Your task to perform on an android device: turn off picture-in-picture Image 0: 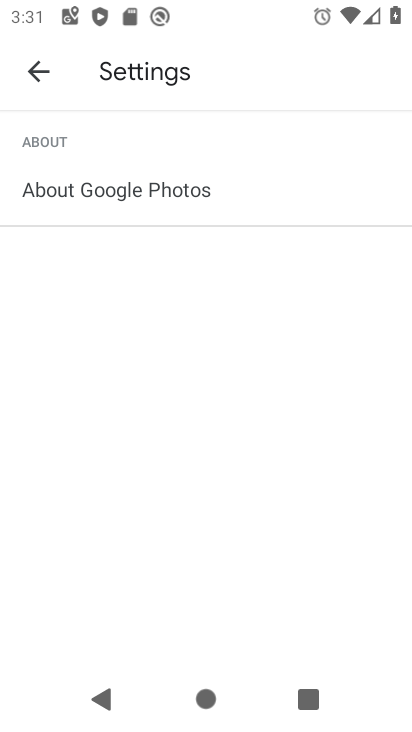
Step 0: press home button
Your task to perform on an android device: turn off picture-in-picture Image 1: 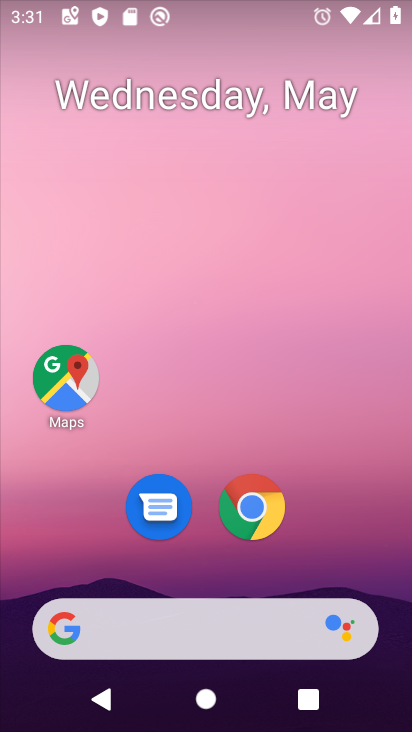
Step 1: click (251, 512)
Your task to perform on an android device: turn off picture-in-picture Image 2: 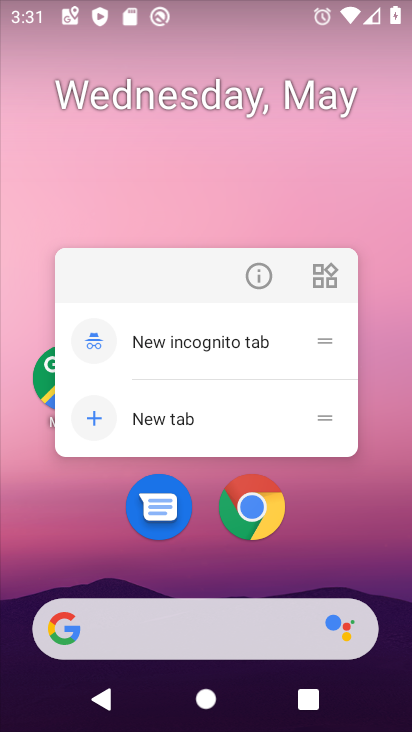
Step 2: click (259, 278)
Your task to perform on an android device: turn off picture-in-picture Image 3: 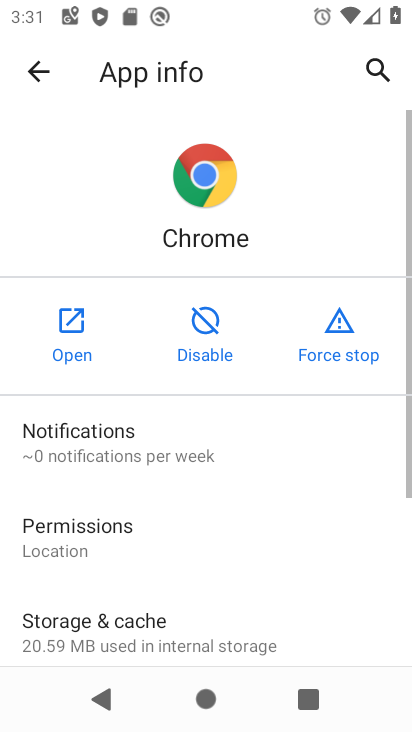
Step 3: drag from (229, 593) to (249, 60)
Your task to perform on an android device: turn off picture-in-picture Image 4: 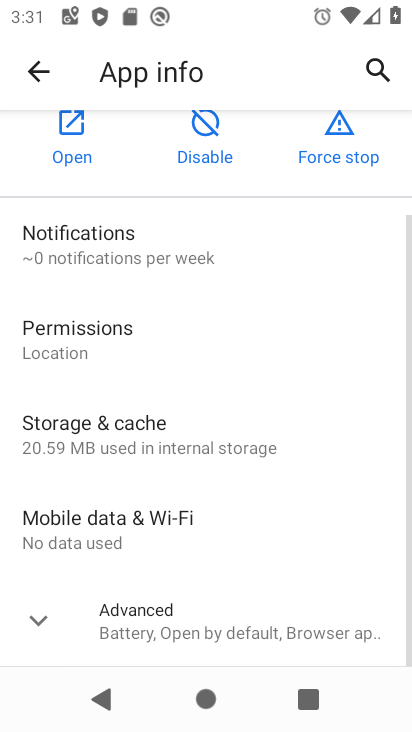
Step 4: click (149, 631)
Your task to perform on an android device: turn off picture-in-picture Image 5: 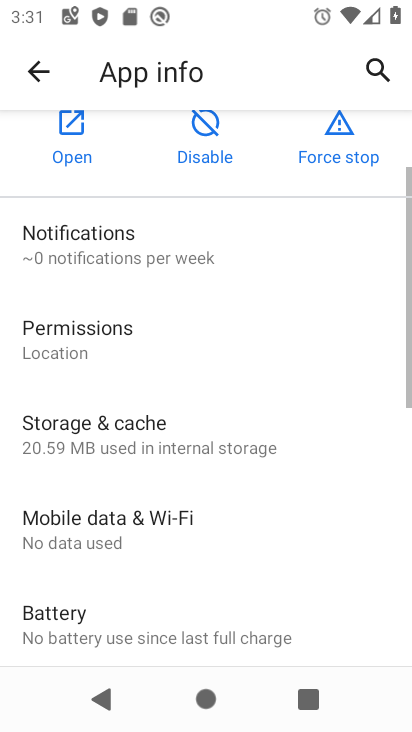
Step 5: drag from (301, 598) to (267, 107)
Your task to perform on an android device: turn off picture-in-picture Image 6: 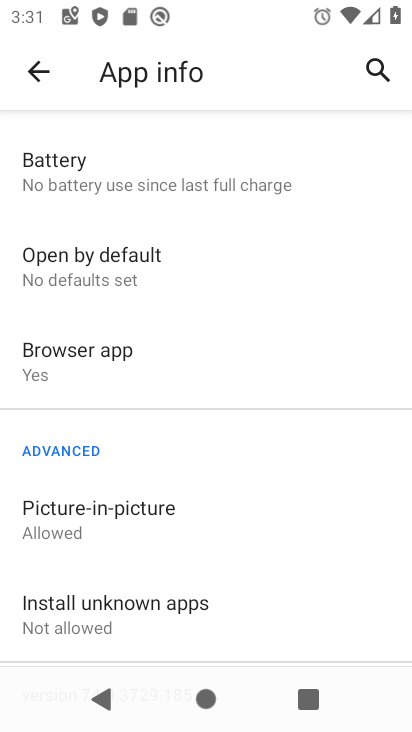
Step 6: click (66, 531)
Your task to perform on an android device: turn off picture-in-picture Image 7: 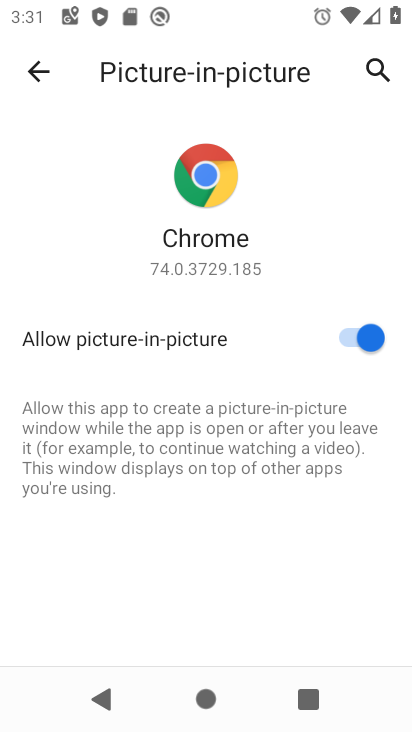
Step 7: click (353, 330)
Your task to perform on an android device: turn off picture-in-picture Image 8: 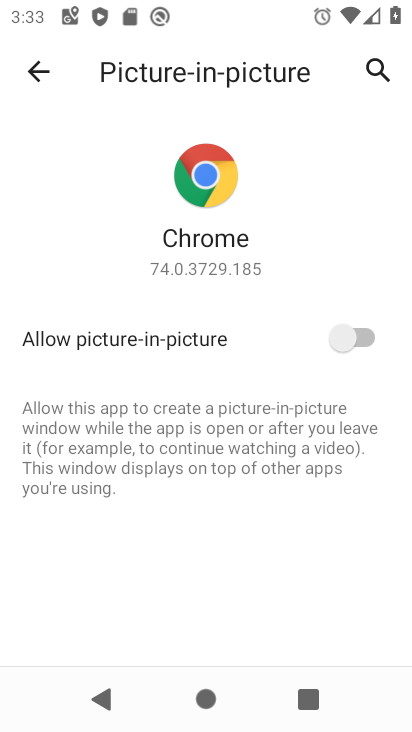
Step 8: task complete